Your task to perform on an android device: Open my contact list Image 0: 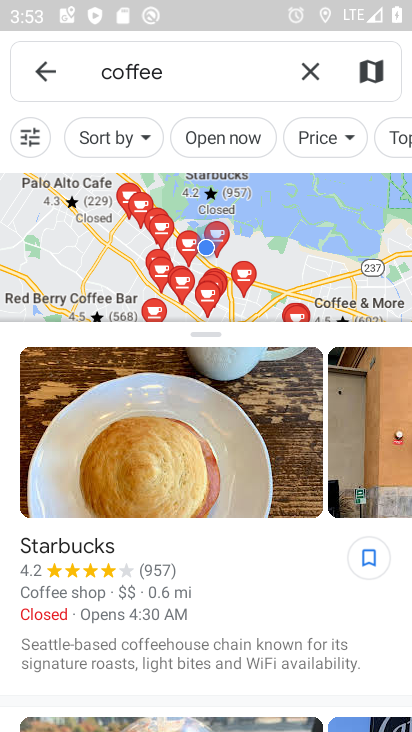
Step 0: press home button
Your task to perform on an android device: Open my contact list Image 1: 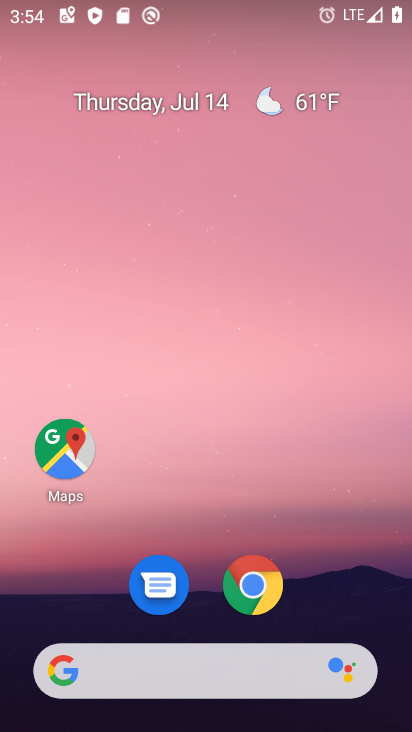
Step 1: drag from (235, 510) to (222, 41)
Your task to perform on an android device: Open my contact list Image 2: 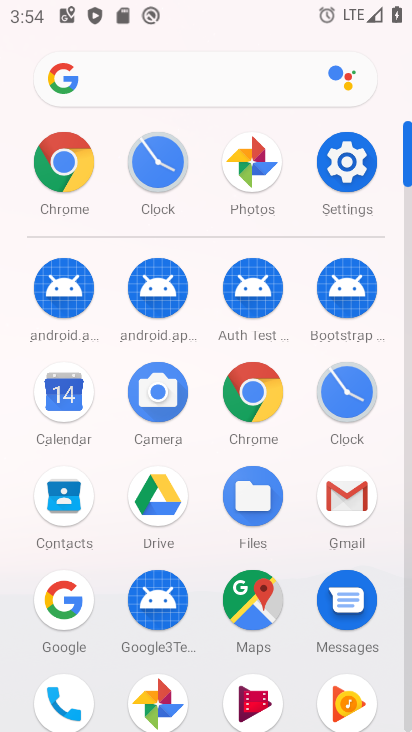
Step 2: click (67, 501)
Your task to perform on an android device: Open my contact list Image 3: 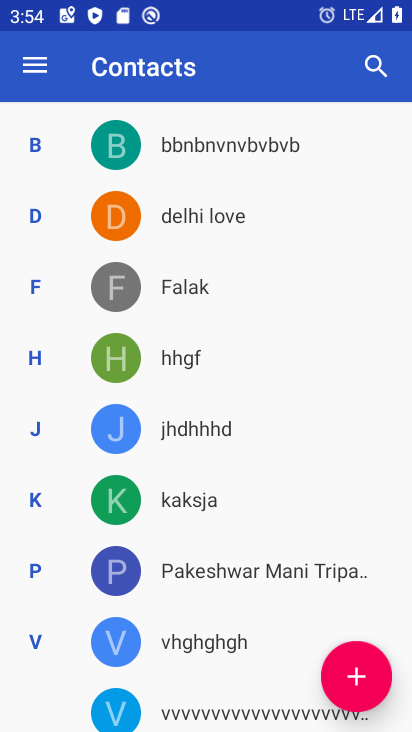
Step 3: task complete